Your task to perform on an android device: What's the weather today? Image 0: 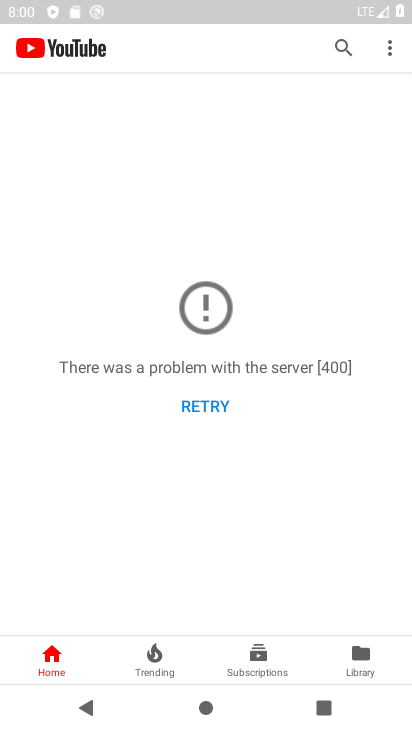
Step 0: press back button
Your task to perform on an android device: What's the weather today? Image 1: 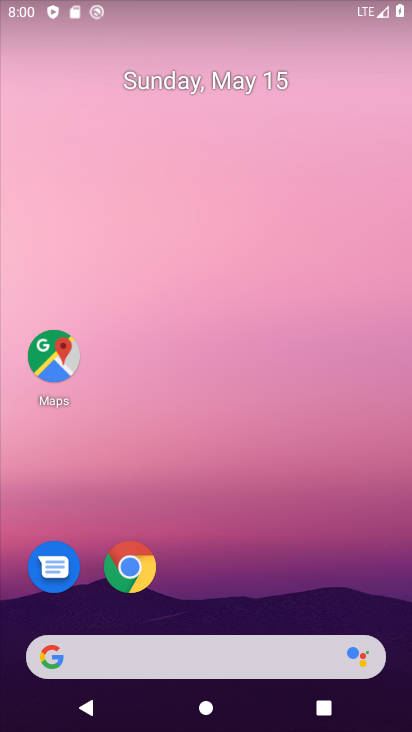
Step 1: click (154, 649)
Your task to perform on an android device: What's the weather today? Image 2: 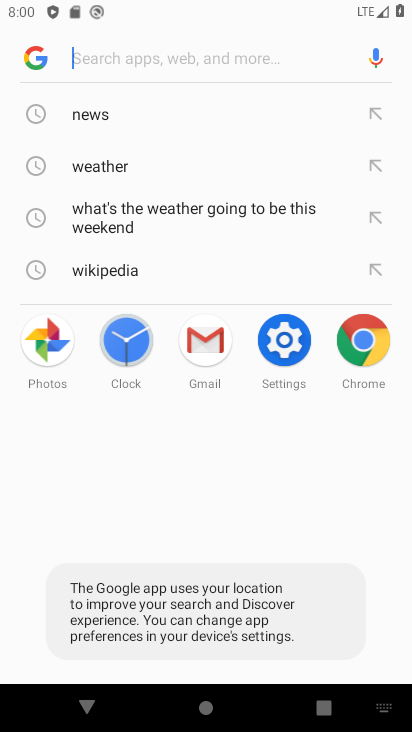
Step 2: click (103, 171)
Your task to perform on an android device: What's the weather today? Image 3: 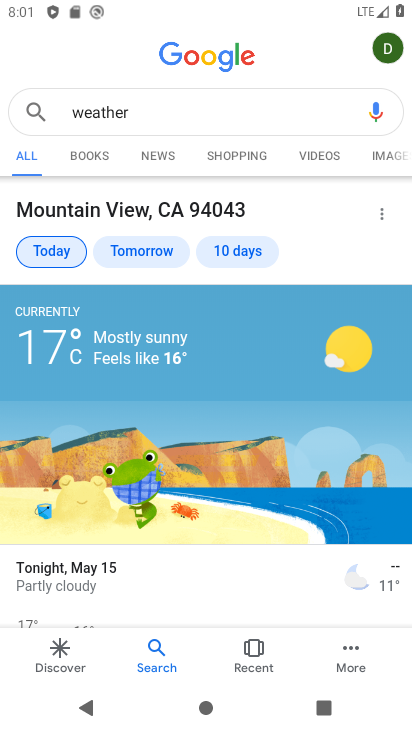
Step 3: click (66, 250)
Your task to perform on an android device: What's the weather today? Image 4: 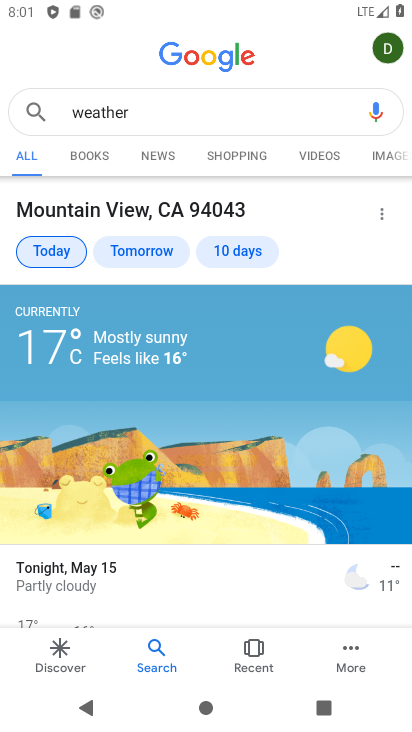
Step 4: task complete